Your task to perform on an android device: Open the map Image 0: 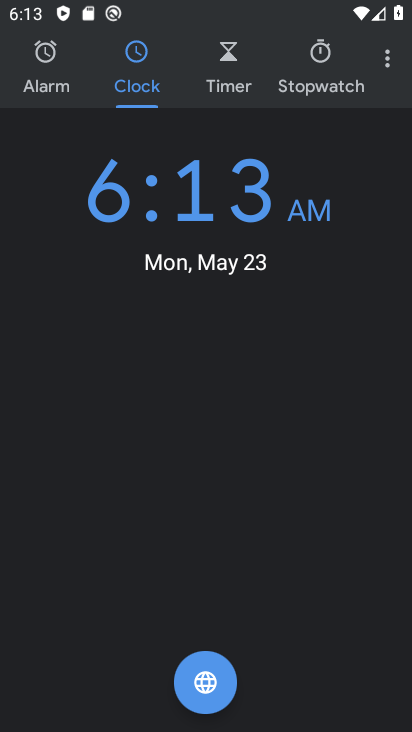
Step 0: press home button
Your task to perform on an android device: Open the map Image 1: 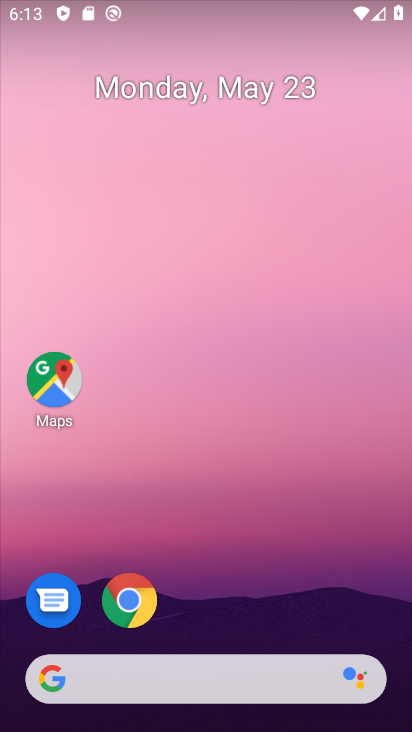
Step 1: drag from (249, 608) to (225, 190)
Your task to perform on an android device: Open the map Image 2: 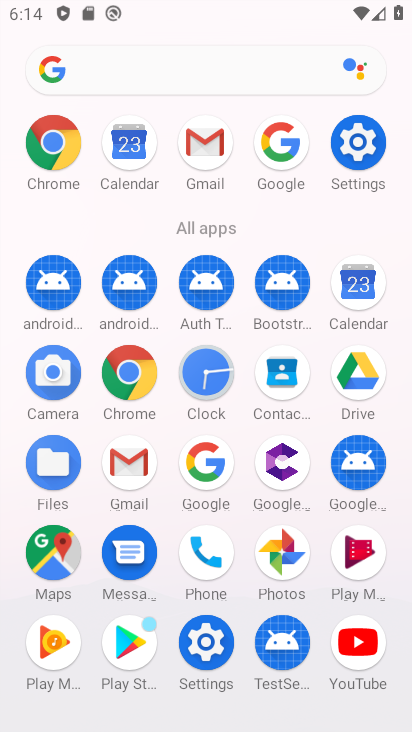
Step 2: click (61, 556)
Your task to perform on an android device: Open the map Image 3: 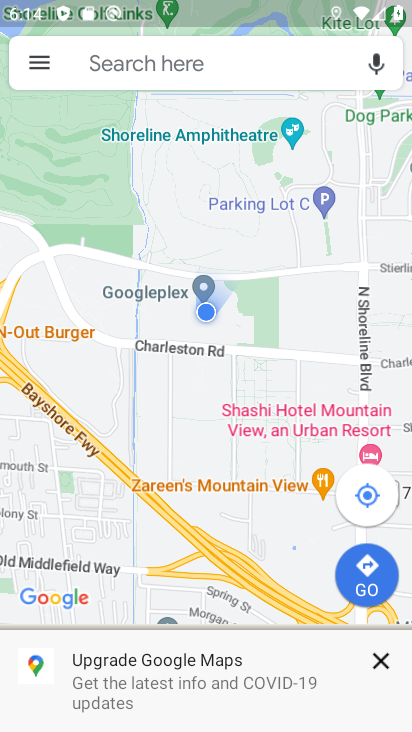
Step 3: task complete